Your task to perform on an android device: uninstall "LiveIn - Share Your Moment" Image 0: 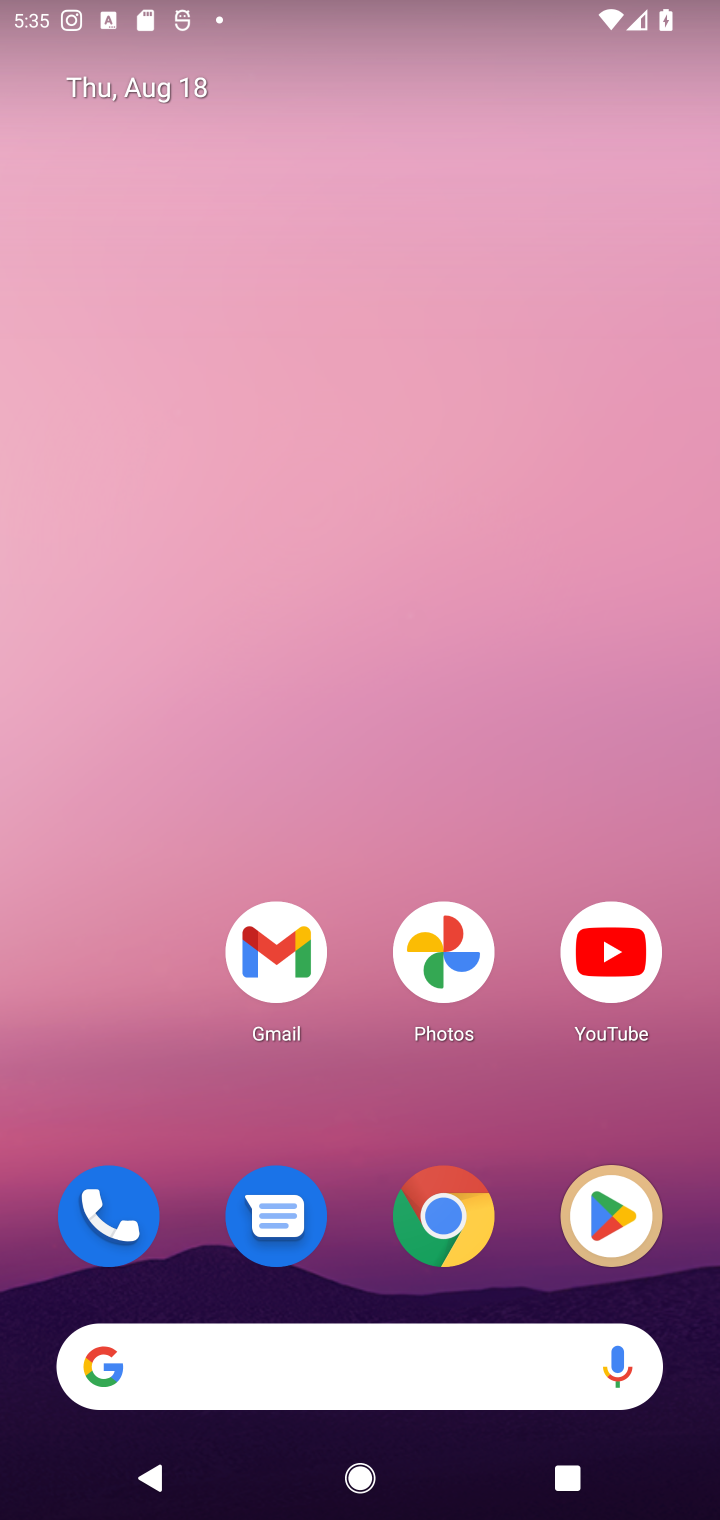
Step 0: click (592, 1234)
Your task to perform on an android device: uninstall "LiveIn - Share Your Moment" Image 1: 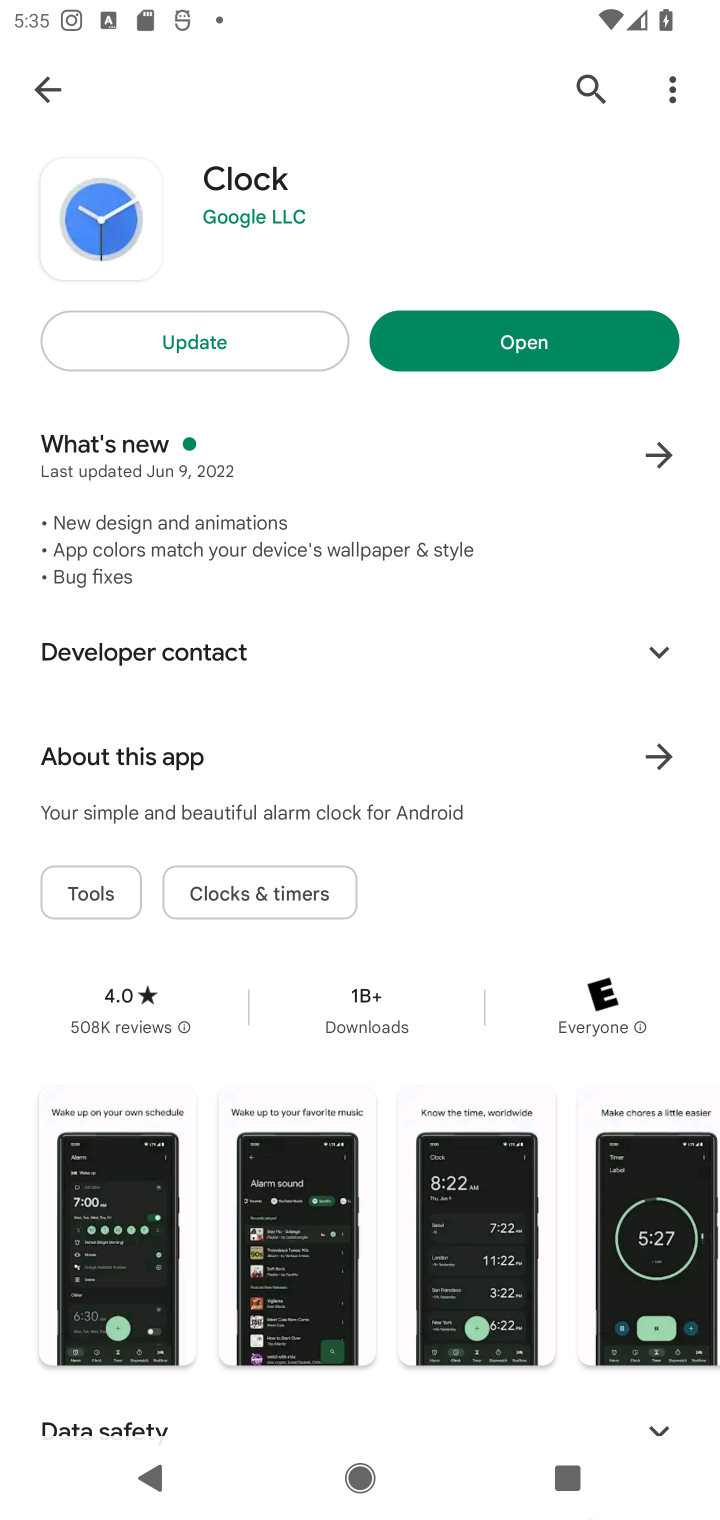
Step 1: click (585, 105)
Your task to perform on an android device: uninstall "LiveIn - Share Your Moment" Image 2: 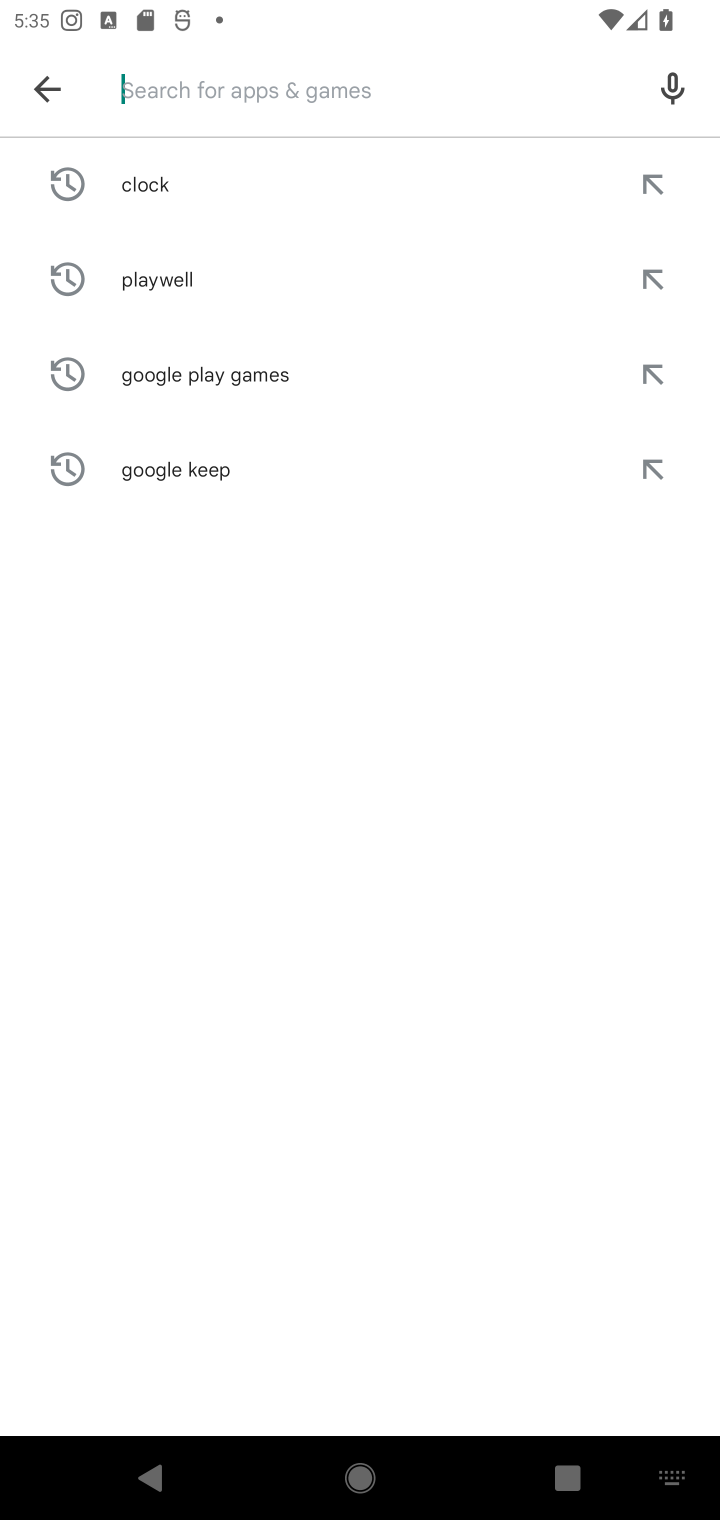
Step 2: type "LiveIn - Share Your Moment"
Your task to perform on an android device: uninstall "LiveIn - Share Your Moment" Image 3: 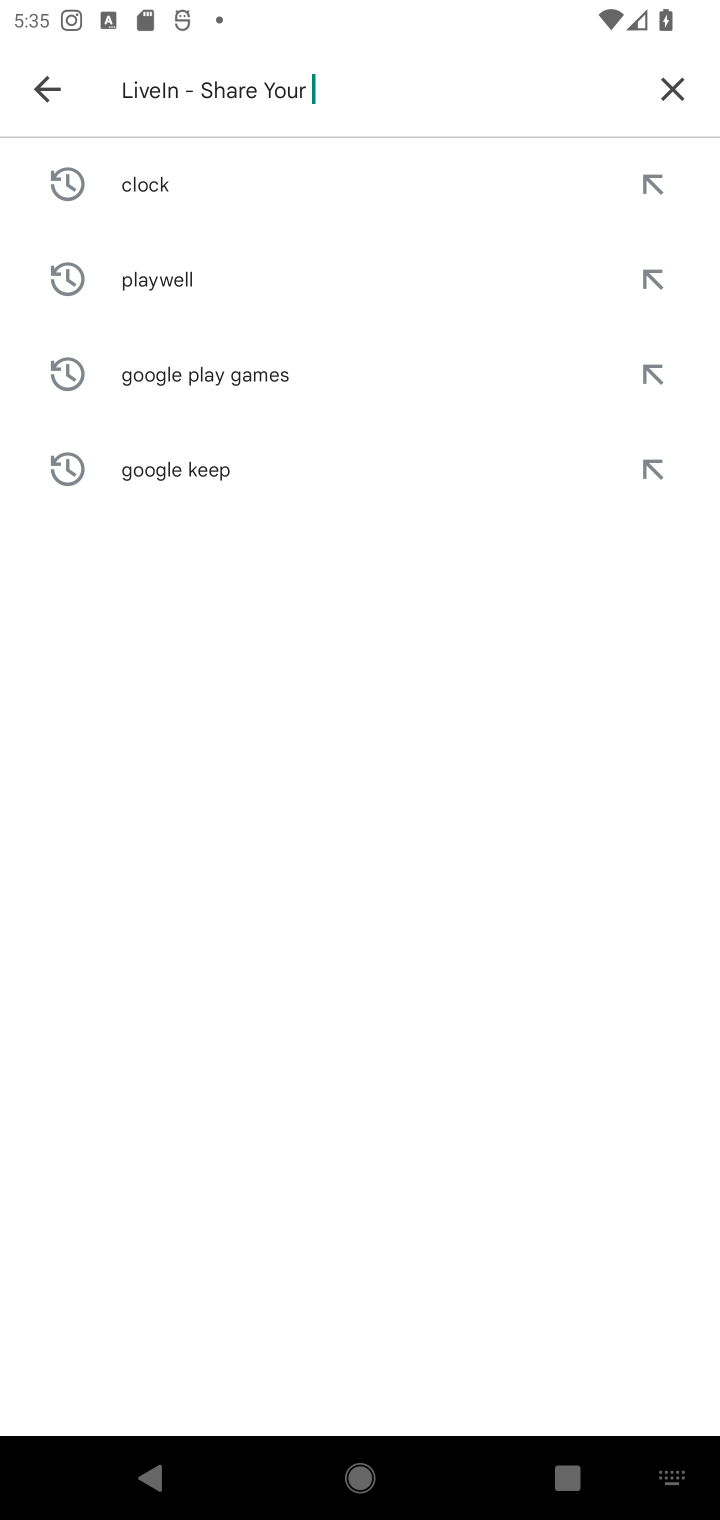
Step 3: type ""
Your task to perform on an android device: uninstall "LiveIn - Share Your Moment" Image 4: 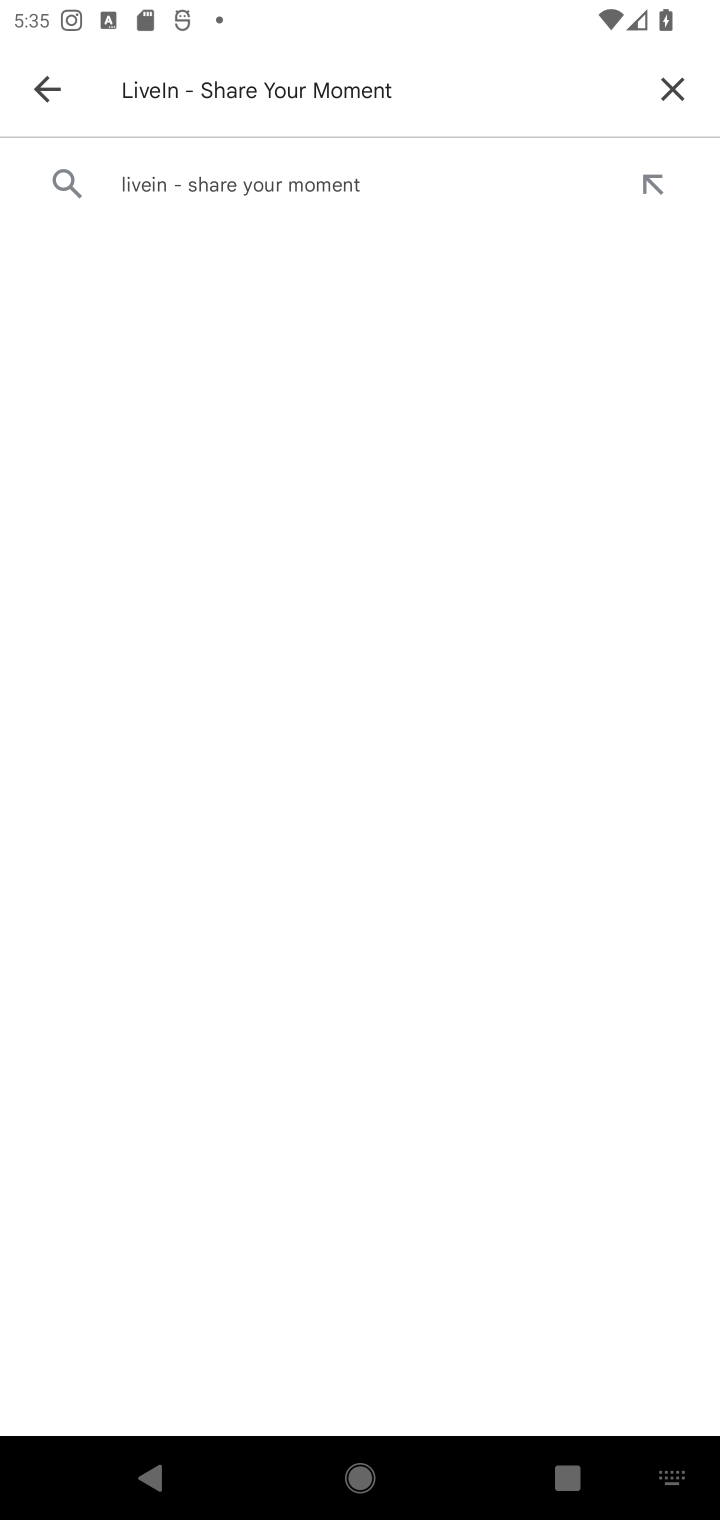
Step 4: click (260, 177)
Your task to perform on an android device: uninstall "LiveIn - Share Your Moment" Image 5: 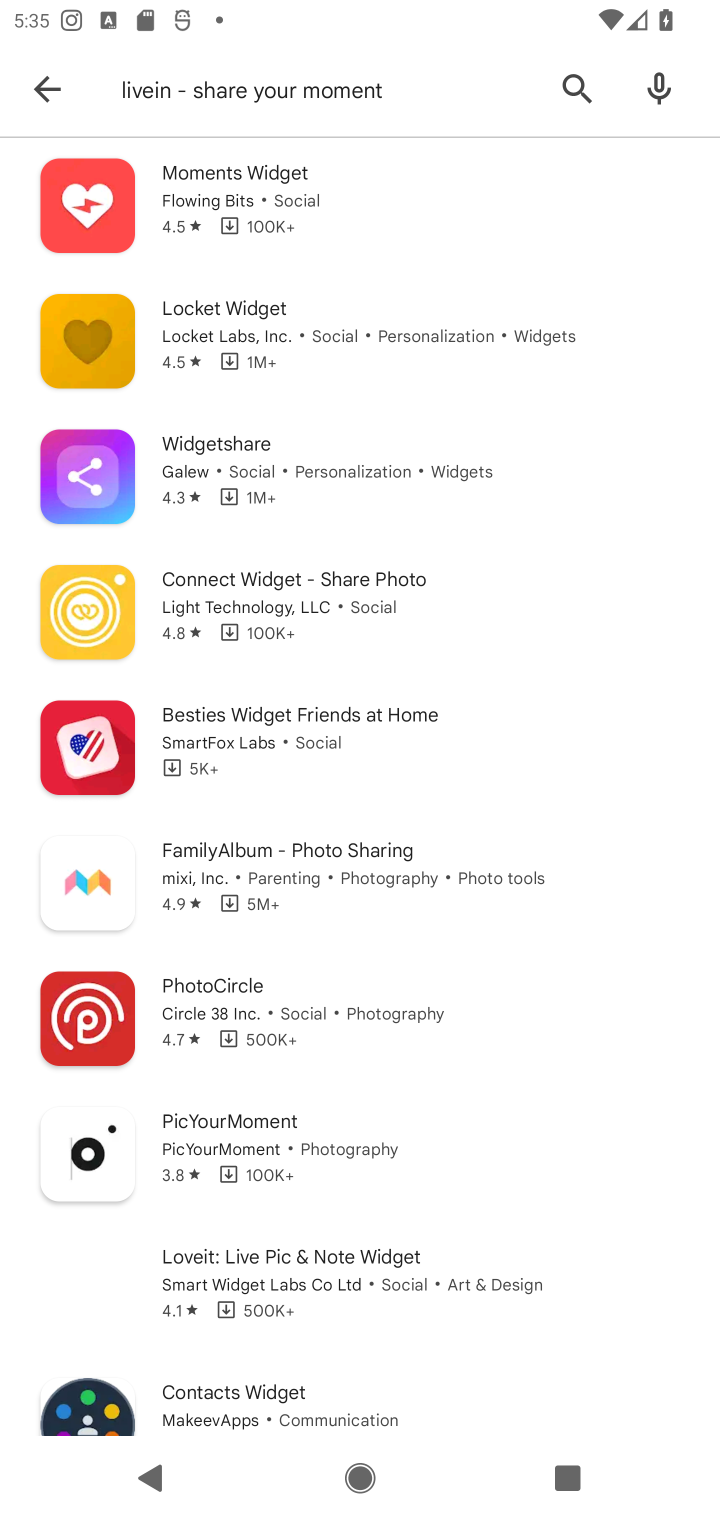
Step 5: task complete